Your task to perform on an android device: move a message to another label in the gmail app Image 0: 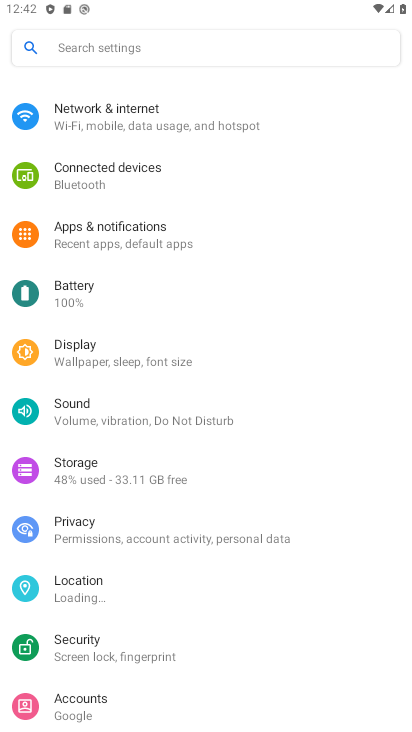
Step 0: press home button
Your task to perform on an android device: move a message to another label in the gmail app Image 1: 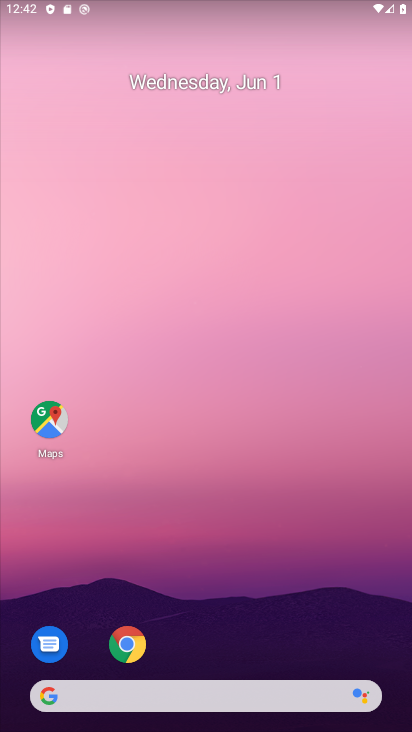
Step 1: drag from (198, 655) to (201, 54)
Your task to perform on an android device: move a message to another label in the gmail app Image 2: 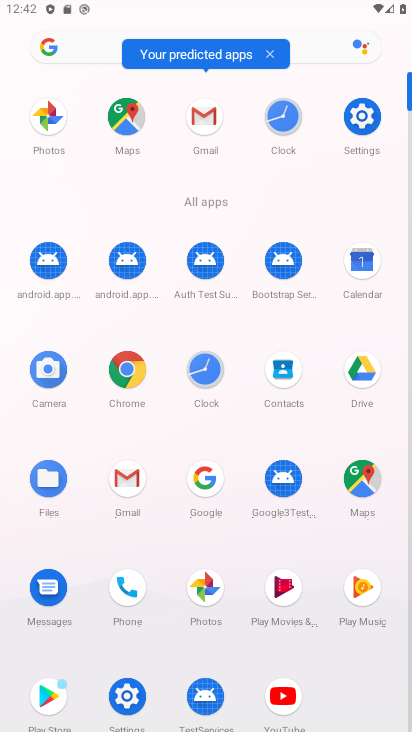
Step 2: click (124, 487)
Your task to perform on an android device: move a message to another label in the gmail app Image 3: 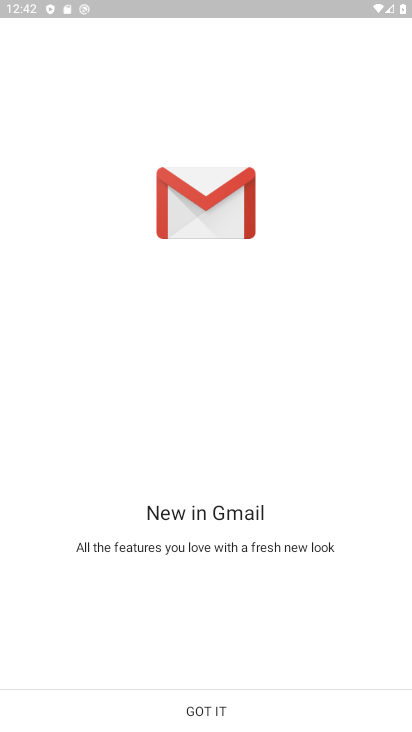
Step 3: click (208, 724)
Your task to perform on an android device: move a message to another label in the gmail app Image 4: 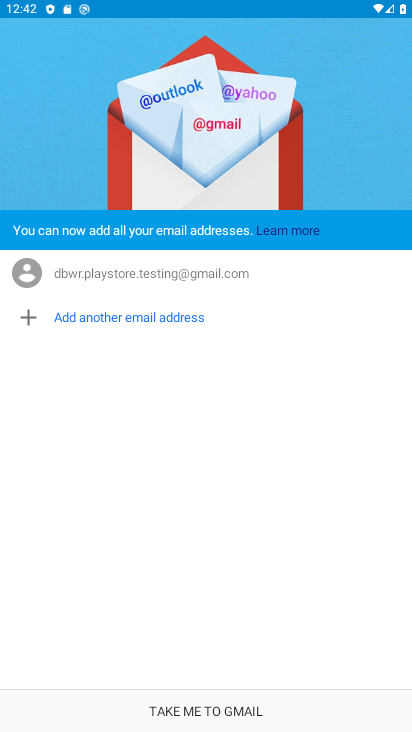
Step 4: click (188, 700)
Your task to perform on an android device: move a message to another label in the gmail app Image 5: 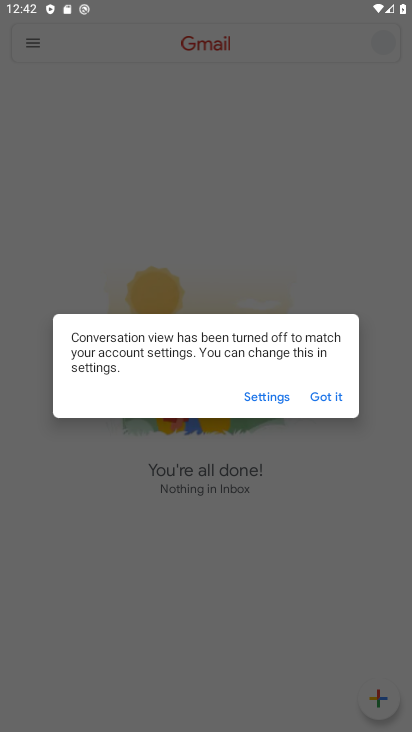
Step 5: click (332, 387)
Your task to perform on an android device: move a message to another label in the gmail app Image 6: 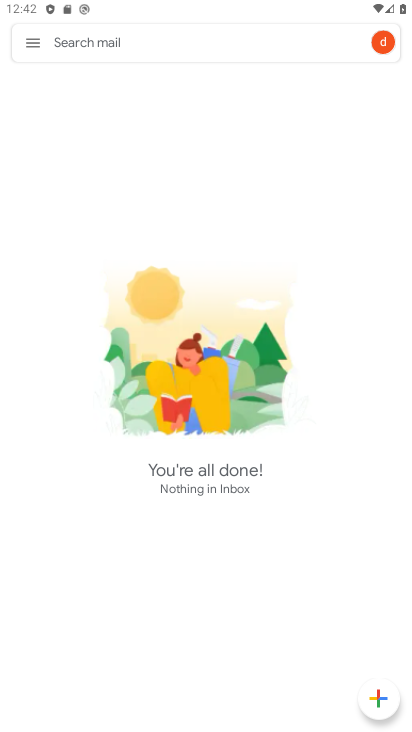
Step 6: click (22, 37)
Your task to perform on an android device: move a message to another label in the gmail app Image 7: 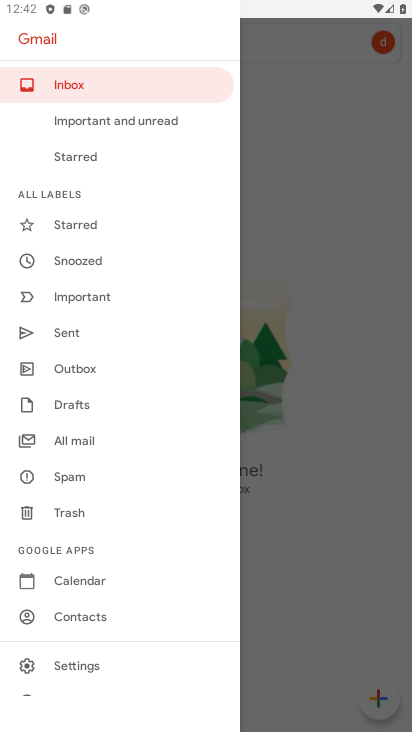
Step 7: click (63, 445)
Your task to perform on an android device: move a message to another label in the gmail app Image 8: 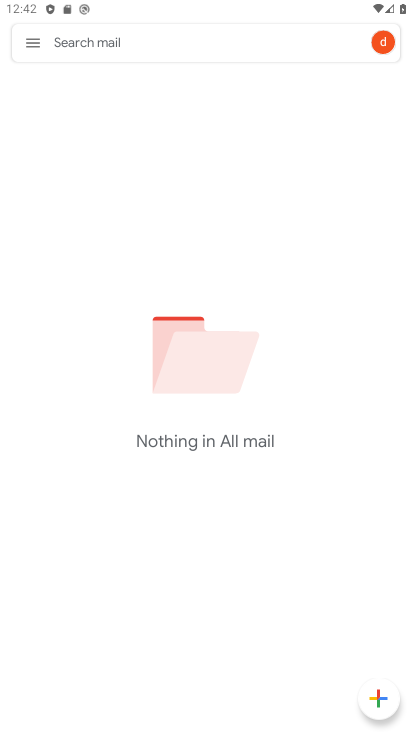
Step 8: task complete